Your task to perform on an android device: turn on airplane mode Image 0: 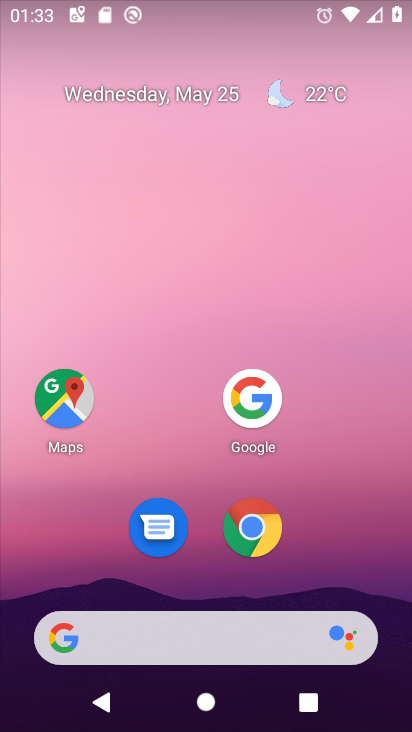
Step 0: press home button
Your task to perform on an android device: turn on airplane mode Image 1: 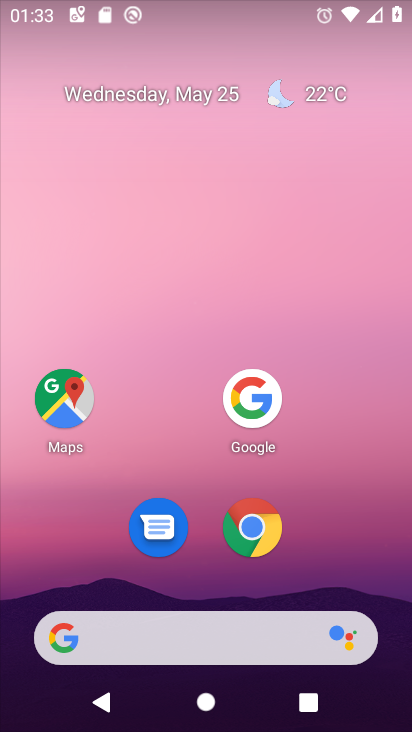
Step 1: drag from (197, 626) to (339, 143)
Your task to perform on an android device: turn on airplane mode Image 2: 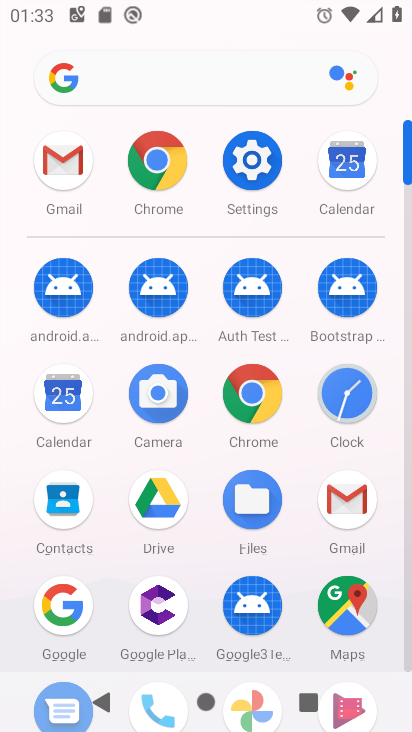
Step 2: click (252, 158)
Your task to perform on an android device: turn on airplane mode Image 3: 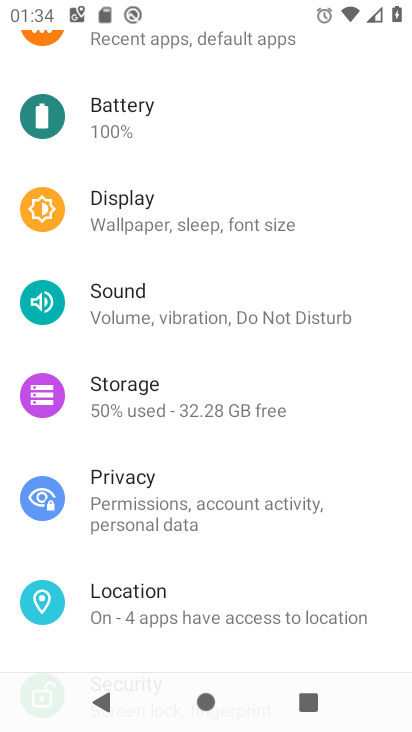
Step 3: drag from (247, 98) to (170, 539)
Your task to perform on an android device: turn on airplane mode Image 4: 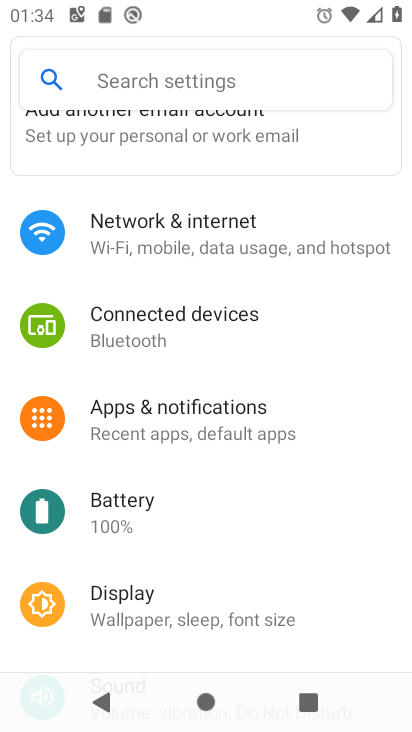
Step 4: click (233, 223)
Your task to perform on an android device: turn on airplane mode Image 5: 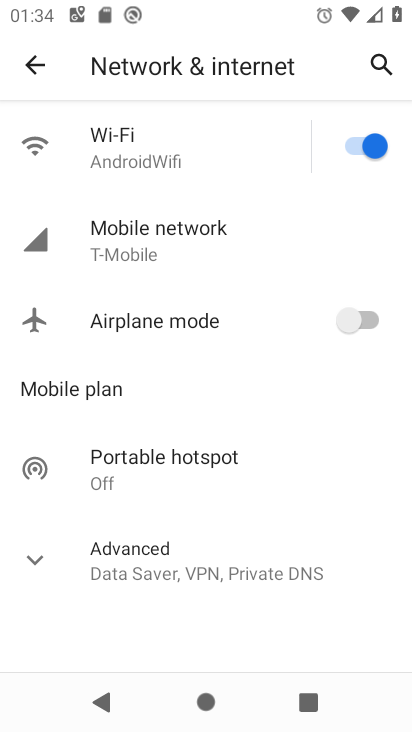
Step 5: click (362, 318)
Your task to perform on an android device: turn on airplane mode Image 6: 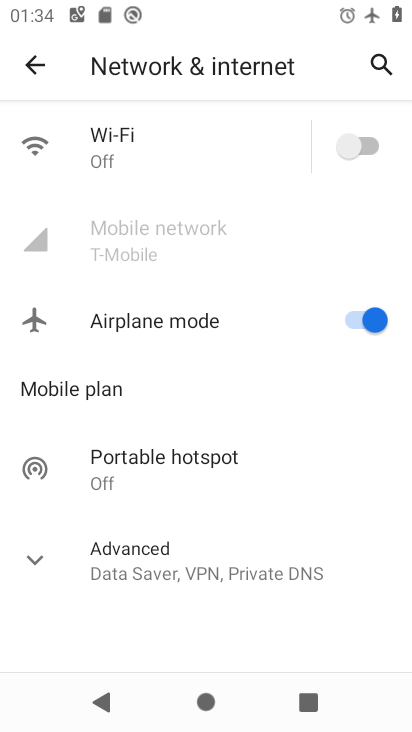
Step 6: task complete